Your task to perform on an android device: stop showing notifications on the lock screen Image 0: 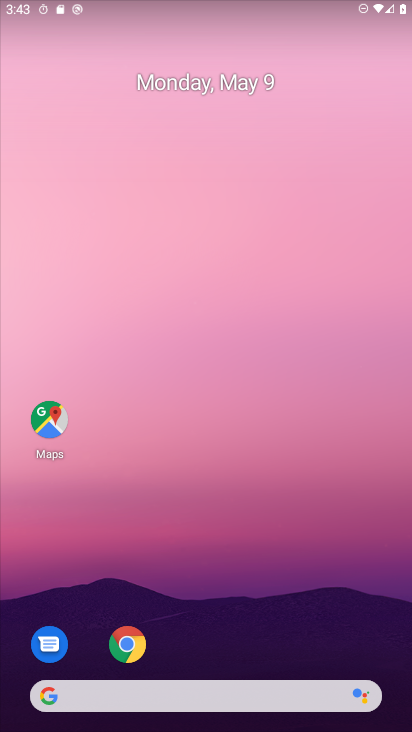
Step 0: drag from (195, 578) to (212, 51)
Your task to perform on an android device: stop showing notifications on the lock screen Image 1: 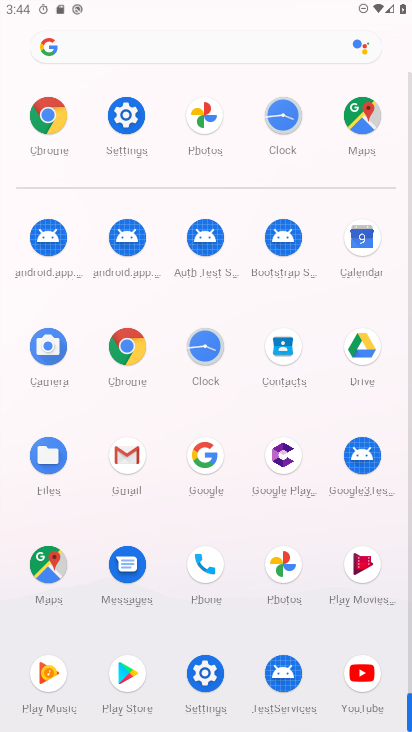
Step 1: click (135, 128)
Your task to perform on an android device: stop showing notifications on the lock screen Image 2: 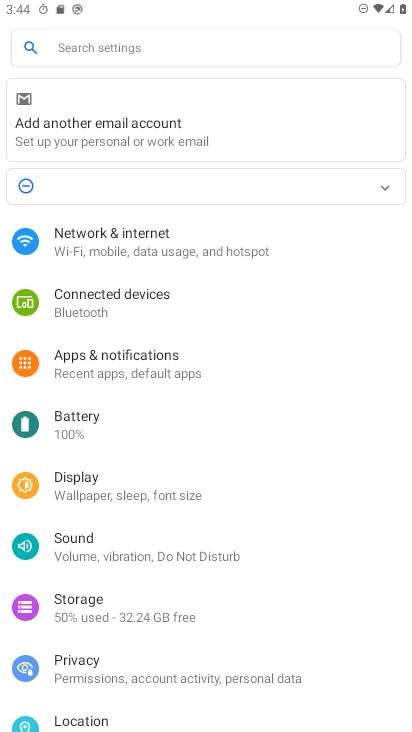
Step 2: click (67, 368)
Your task to perform on an android device: stop showing notifications on the lock screen Image 3: 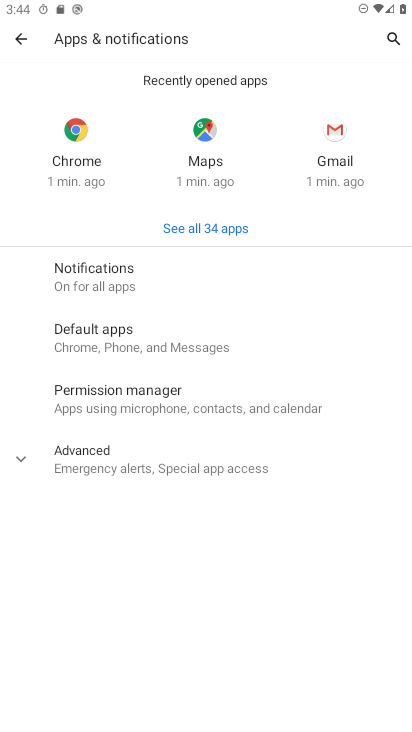
Step 3: click (73, 281)
Your task to perform on an android device: stop showing notifications on the lock screen Image 4: 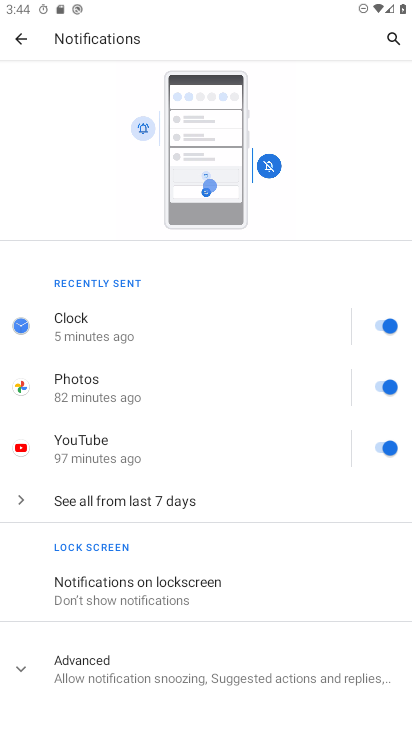
Step 4: click (136, 603)
Your task to perform on an android device: stop showing notifications on the lock screen Image 5: 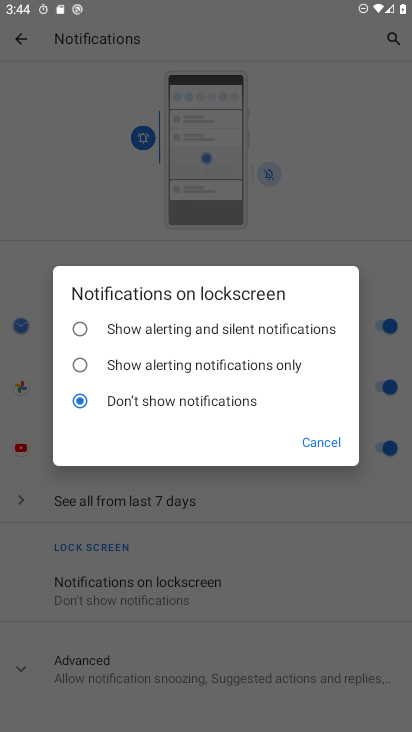
Step 5: task complete